Your task to perform on an android device: change text size in settings app Image 0: 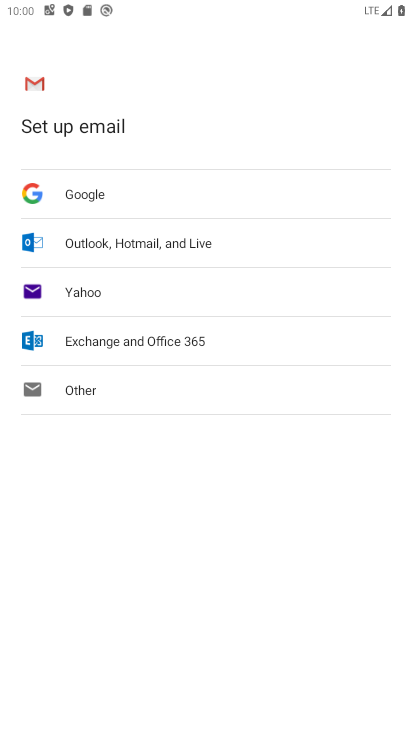
Step 0: press home button
Your task to perform on an android device: change text size in settings app Image 1: 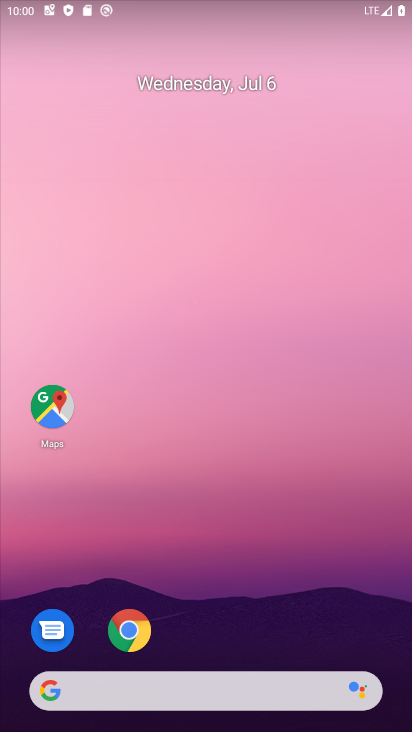
Step 1: drag from (373, 640) to (320, 172)
Your task to perform on an android device: change text size in settings app Image 2: 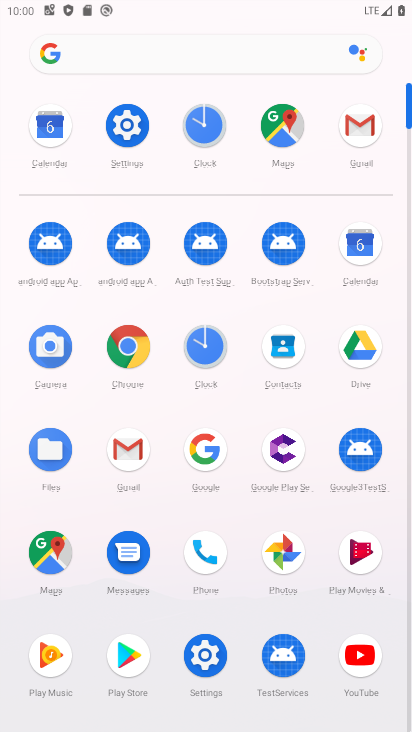
Step 2: click (205, 657)
Your task to perform on an android device: change text size in settings app Image 3: 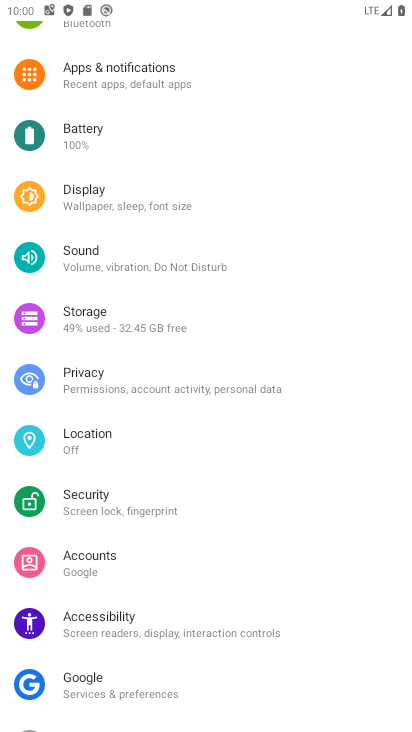
Step 3: click (92, 193)
Your task to perform on an android device: change text size in settings app Image 4: 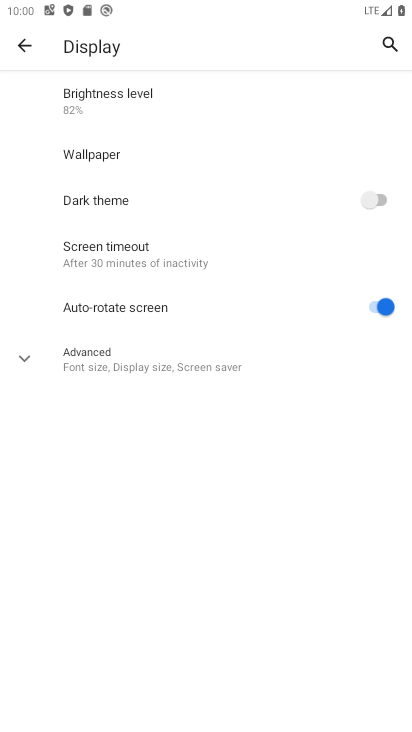
Step 4: click (31, 353)
Your task to perform on an android device: change text size in settings app Image 5: 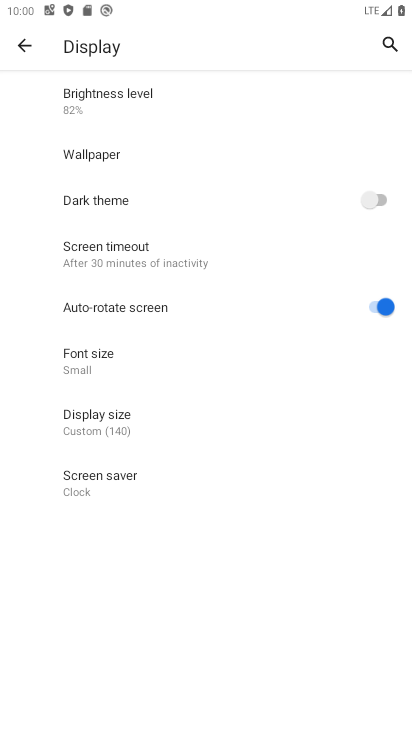
Step 5: click (81, 353)
Your task to perform on an android device: change text size in settings app Image 6: 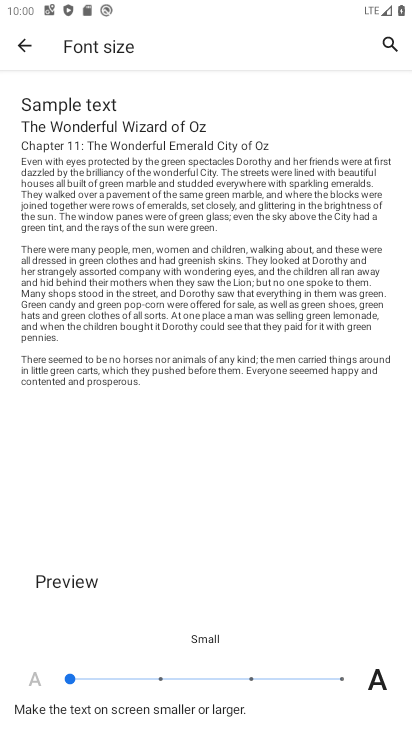
Step 6: click (159, 677)
Your task to perform on an android device: change text size in settings app Image 7: 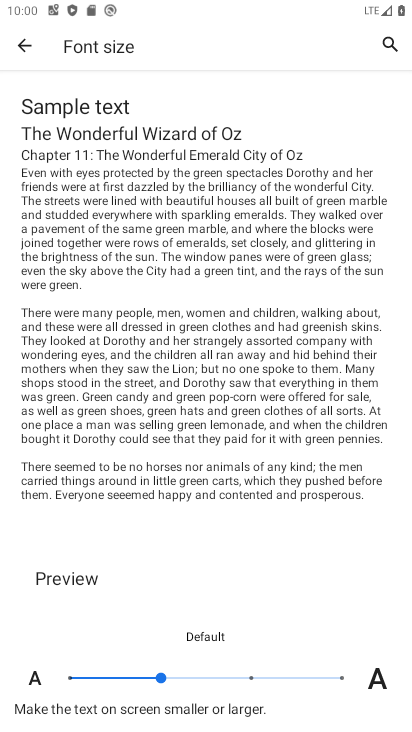
Step 7: click (249, 678)
Your task to perform on an android device: change text size in settings app Image 8: 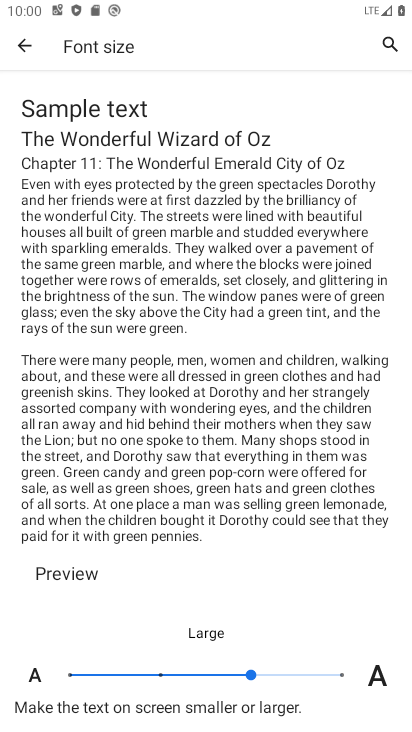
Step 8: task complete